Your task to perform on an android device: all mails in gmail Image 0: 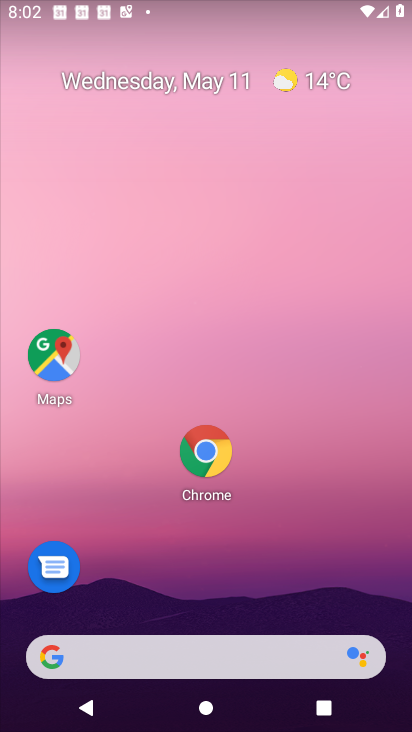
Step 0: drag from (183, 653) to (218, 226)
Your task to perform on an android device: all mails in gmail Image 1: 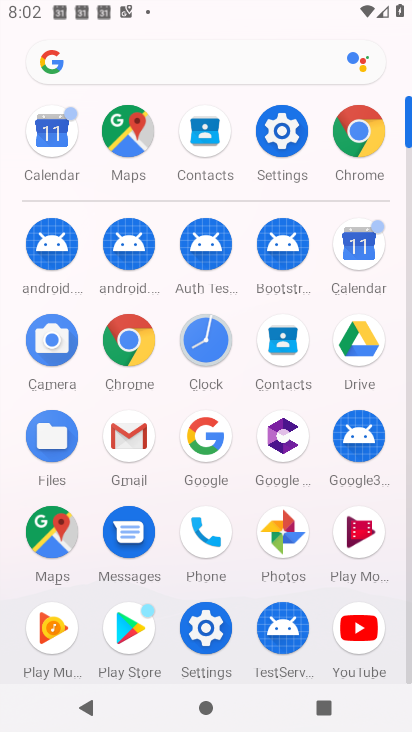
Step 1: click (122, 445)
Your task to perform on an android device: all mails in gmail Image 2: 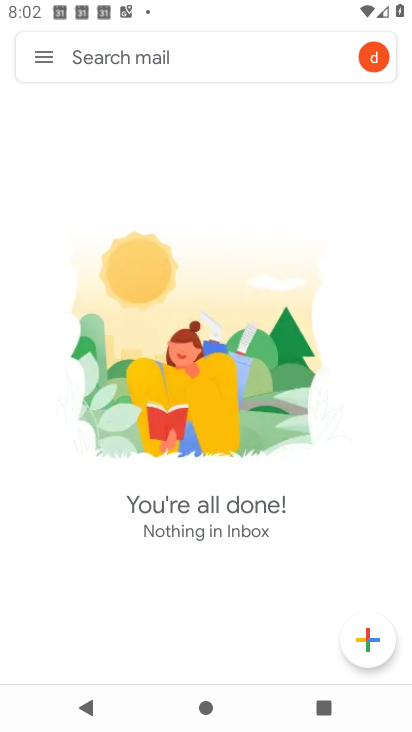
Step 2: click (45, 57)
Your task to perform on an android device: all mails in gmail Image 3: 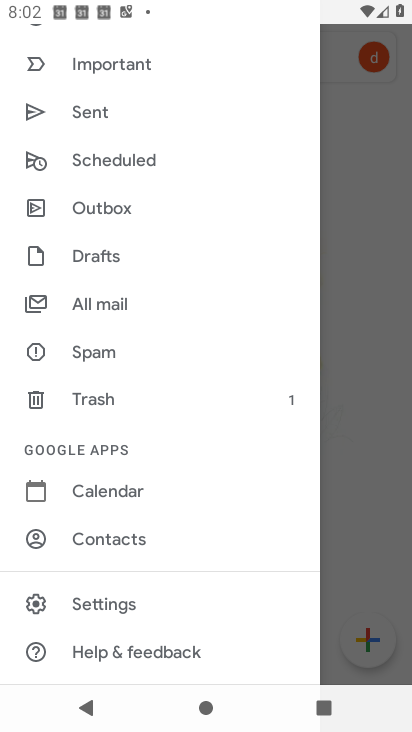
Step 3: click (118, 299)
Your task to perform on an android device: all mails in gmail Image 4: 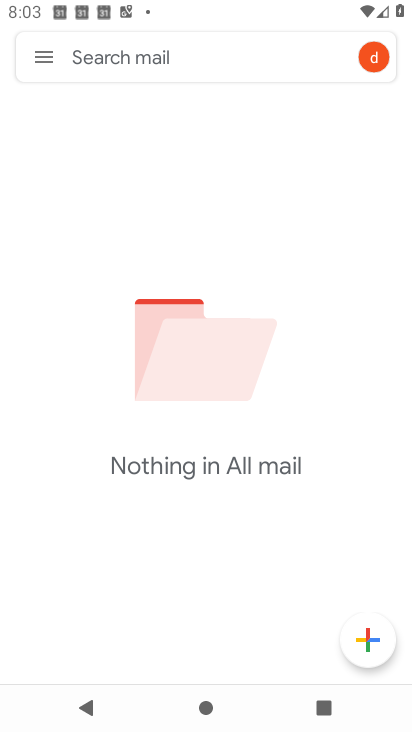
Step 4: task complete